Your task to perform on an android device: Open settings Image 0: 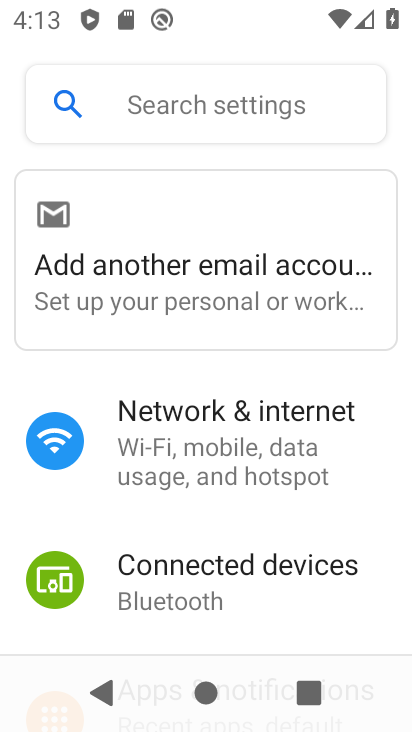
Step 0: drag from (148, 480) to (176, 79)
Your task to perform on an android device: Open settings Image 1: 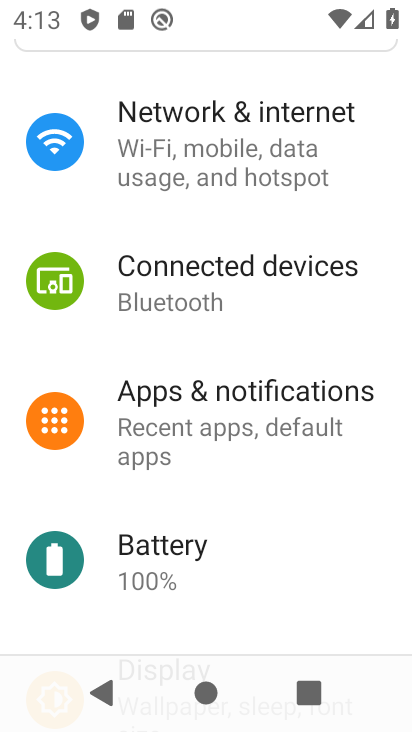
Step 1: task complete